Your task to perform on an android device: allow notifications from all sites in the chrome app Image 0: 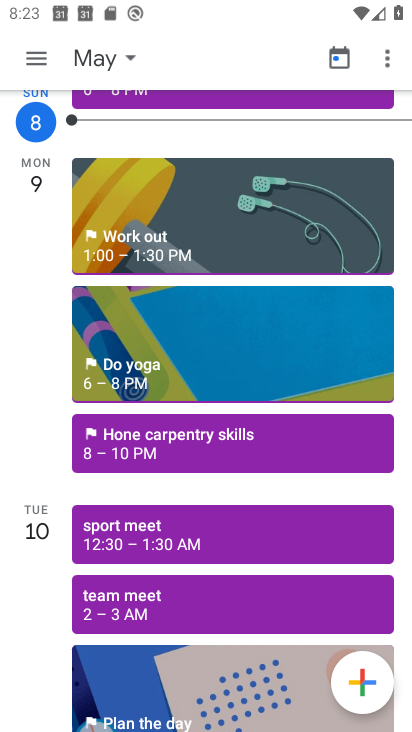
Step 0: press home button
Your task to perform on an android device: allow notifications from all sites in the chrome app Image 1: 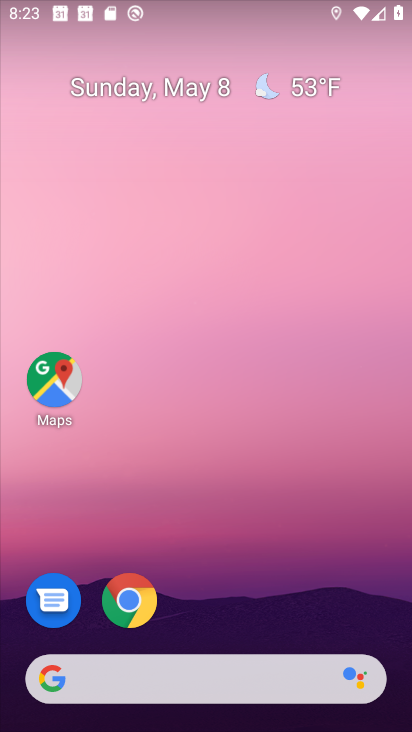
Step 1: drag from (280, 586) to (261, 271)
Your task to perform on an android device: allow notifications from all sites in the chrome app Image 2: 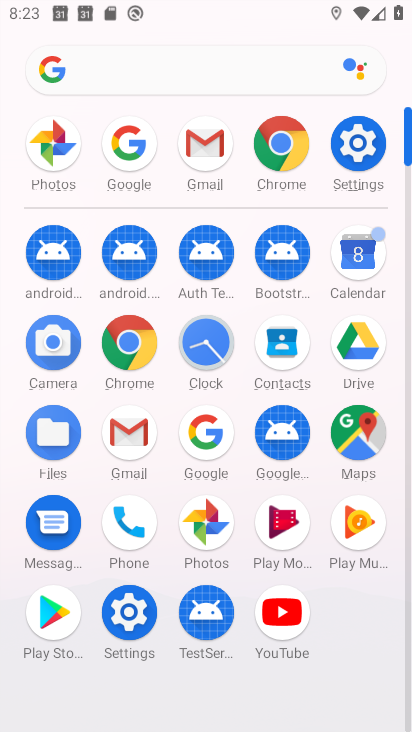
Step 2: click (288, 162)
Your task to perform on an android device: allow notifications from all sites in the chrome app Image 3: 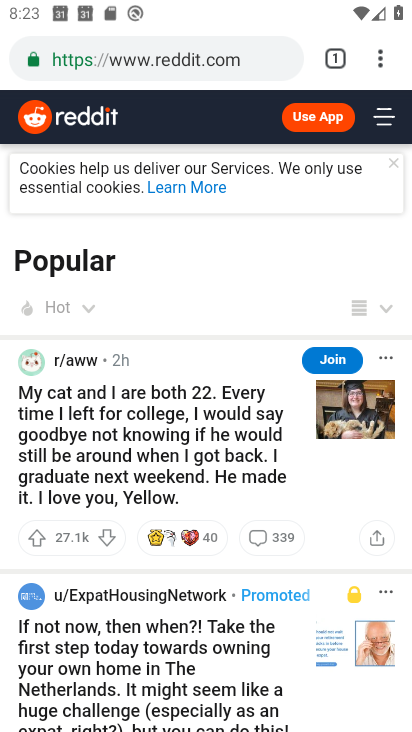
Step 3: click (385, 67)
Your task to perform on an android device: allow notifications from all sites in the chrome app Image 4: 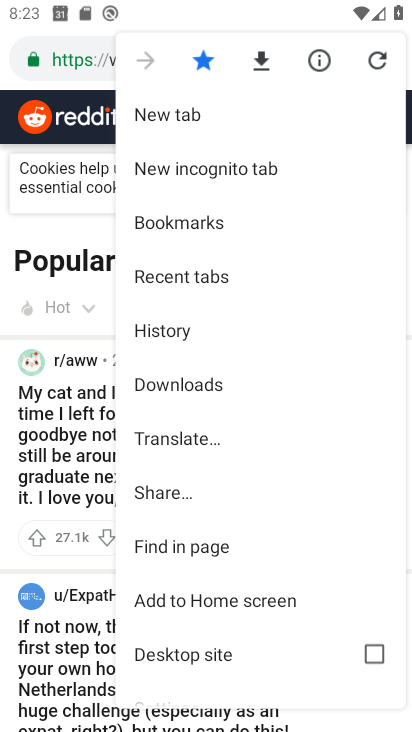
Step 4: drag from (222, 582) to (219, 326)
Your task to perform on an android device: allow notifications from all sites in the chrome app Image 5: 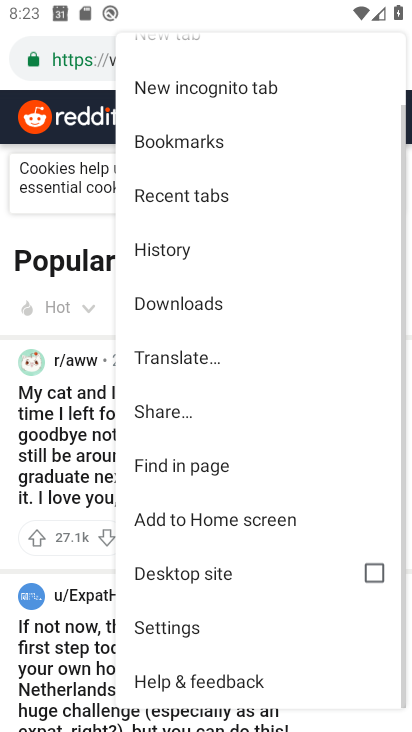
Step 5: click (192, 634)
Your task to perform on an android device: allow notifications from all sites in the chrome app Image 6: 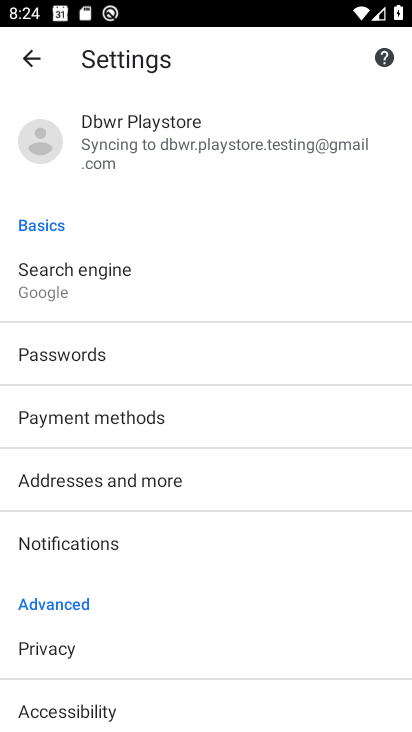
Step 6: drag from (194, 634) to (241, 95)
Your task to perform on an android device: allow notifications from all sites in the chrome app Image 7: 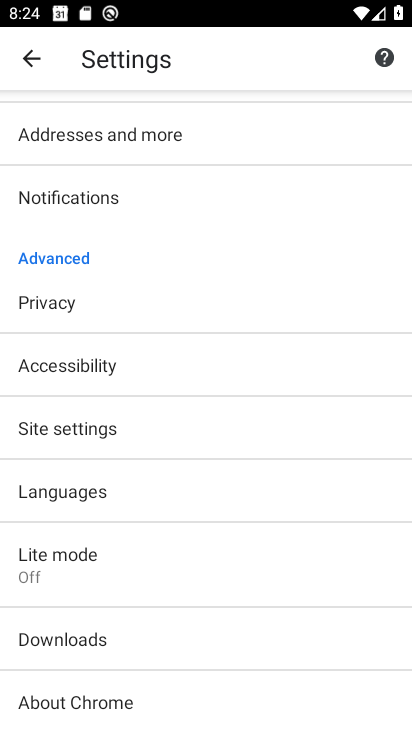
Step 7: click (150, 193)
Your task to perform on an android device: allow notifications from all sites in the chrome app Image 8: 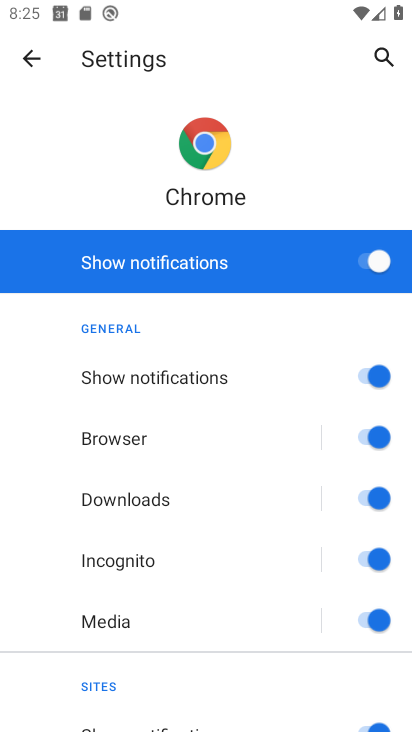
Step 8: task complete